Your task to perform on an android device: Show me productivity apps on the Play Store Image 0: 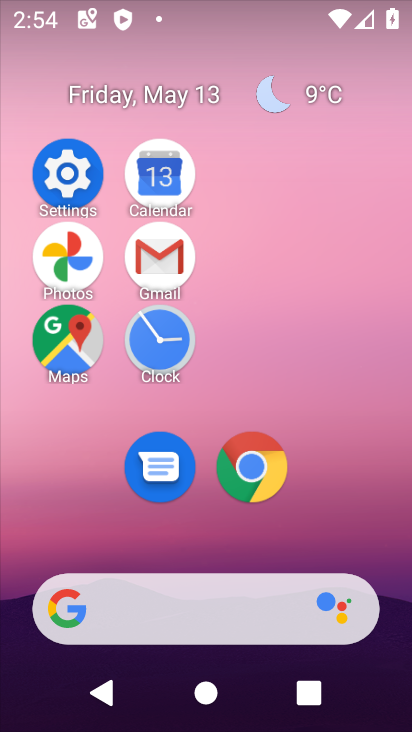
Step 0: drag from (189, 567) to (211, 138)
Your task to perform on an android device: Show me productivity apps on the Play Store Image 1: 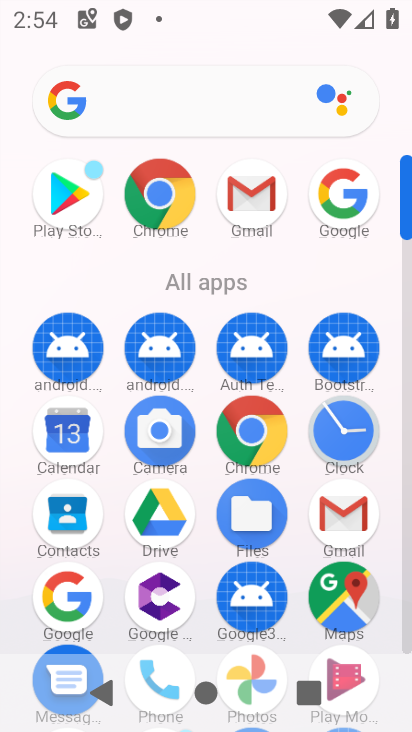
Step 1: drag from (187, 597) to (213, 293)
Your task to perform on an android device: Show me productivity apps on the Play Store Image 2: 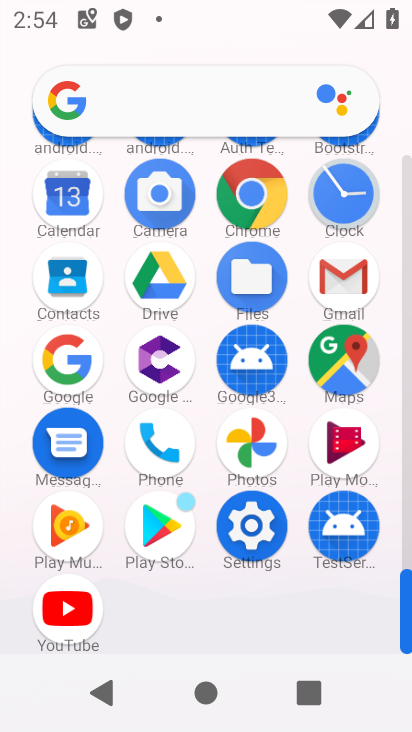
Step 2: click (166, 514)
Your task to perform on an android device: Show me productivity apps on the Play Store Image 3: 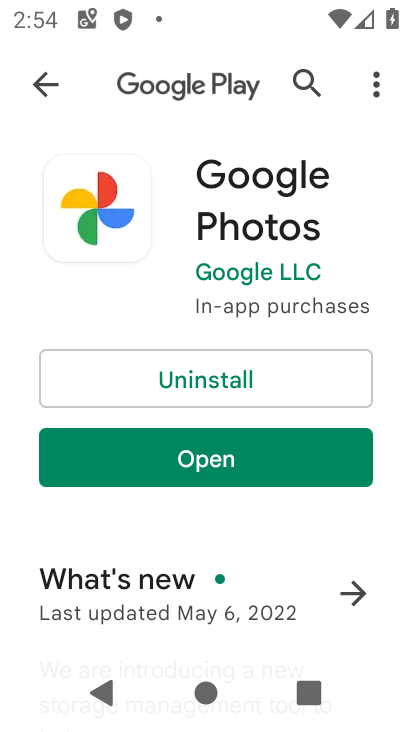
Step 3: click (53, 99)
Your task to perform on an android device: Show me productivity apps on the Play Store Image 4: 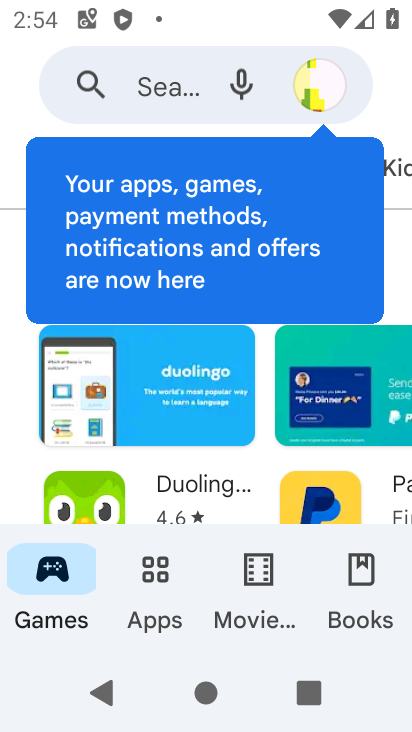
Step 4: click (162, 590)
Your task to perform on an android device: Show me productivity apps on the Play Store Image 5: 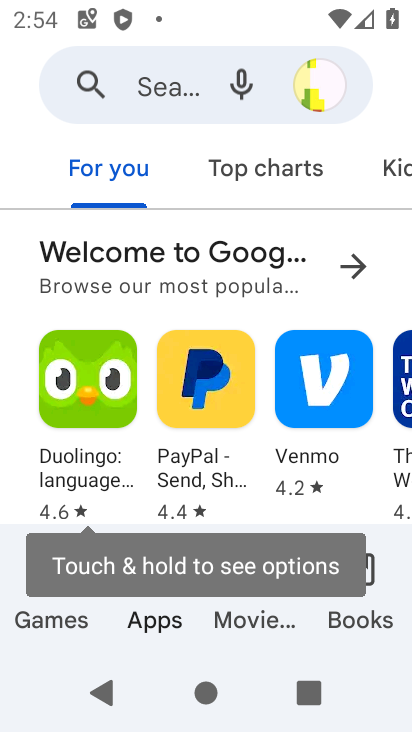
Step 5: drag from (316, 182) to (66, 181)
Your task to perform on an android device: Show me productivity apps on the Play Store Image 6: 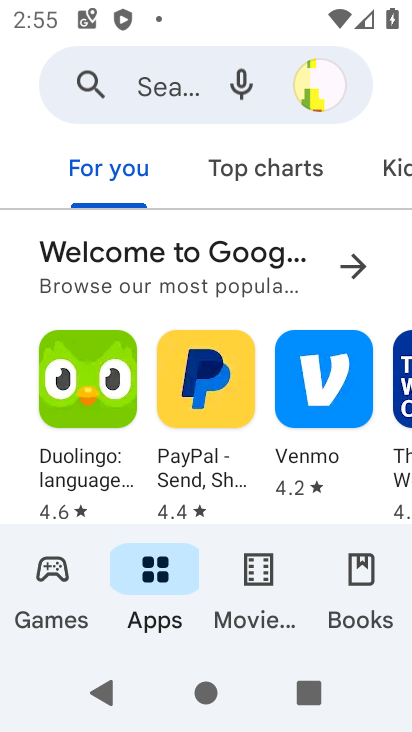
Step 6: drag from (370, 162) to (60, 170)
Your task to perform on an android device: Show me productivity apps on the Play Store Image 7: 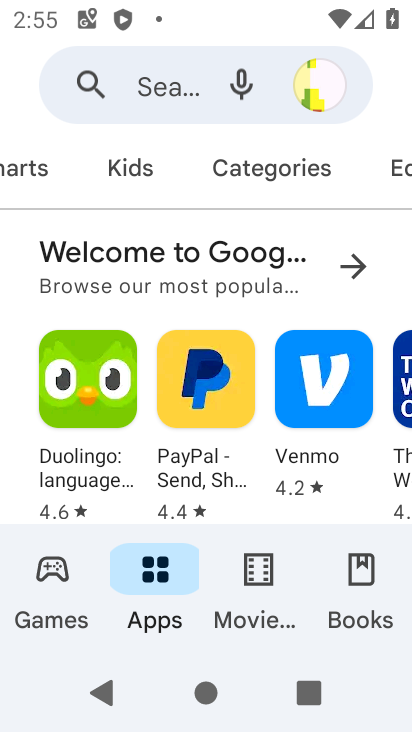
Step 7: click (285, 165)
Your task to perform on an android device: Show me productivity apps on the Play Store Image 8: 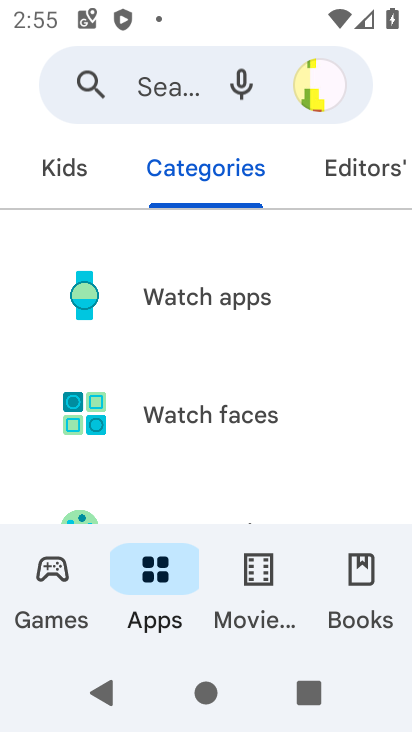
Step 8: drag from (244, 462) to (235, 152)
Your task to perform on an android device: Show me productivity apps on the Play Store Image 9: 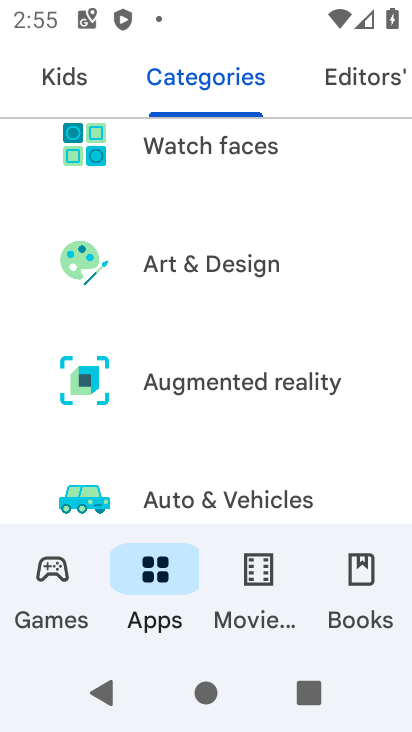
Step 9: drag from (294, 449) to (300, 133)
Your task to perform on an android device: Show me productivity apps on the Play Store Image 10: 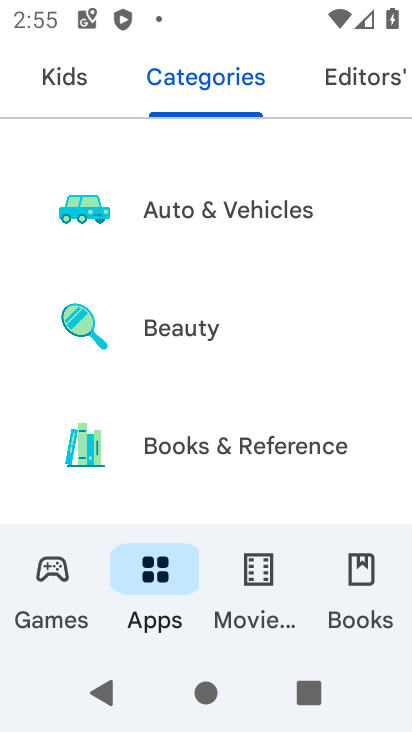
Step 10: drag from (265, 468) to (271, 183)
Your task to perform on an android device: Show me productivity apps on the Play Store Image 11: 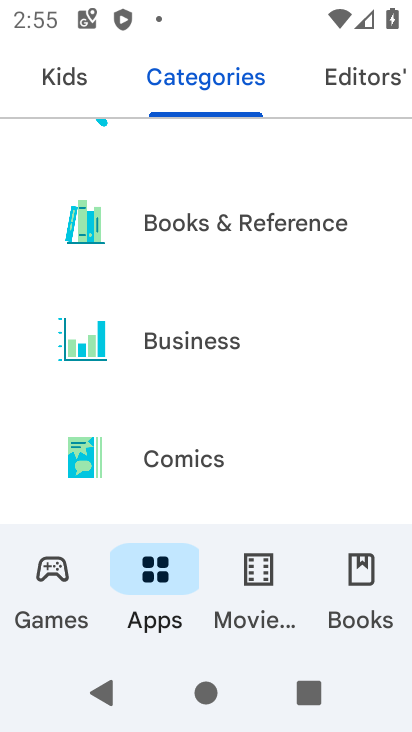
Step 11: drag from (268, 464) to (269, 110)
Your task to perform on an android device: Show me productivity apps on the Play Store Image 12: 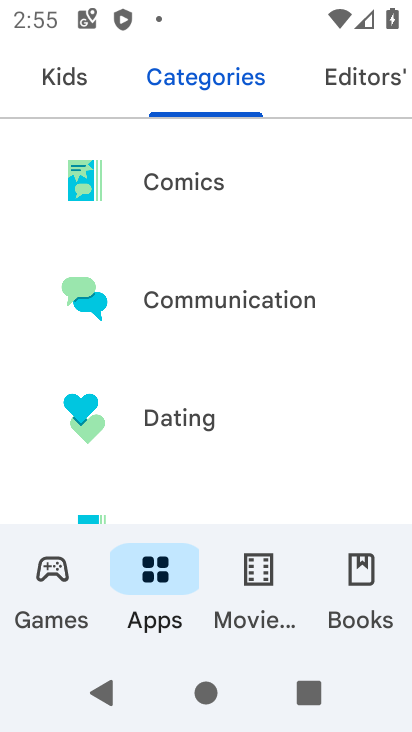
Step 12: drag from (273, 475) to (256, 127)
Your task to perform on an android device: Show me productivity apps on the Play Store Image 13: 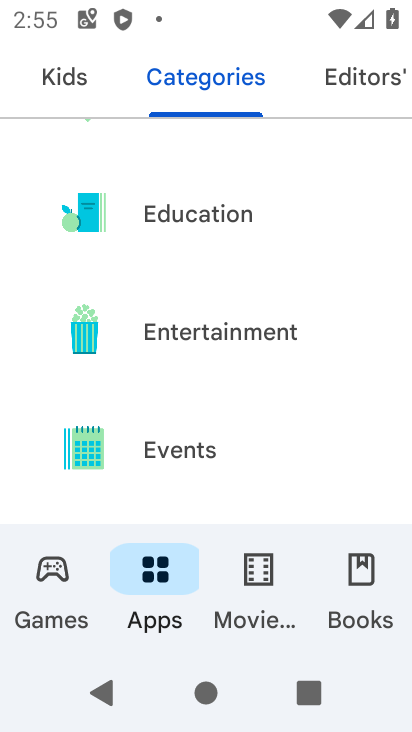
Step 13: drag from (219, 495) to (229, 165)
Your task to perform on an android device: Show me productivity apps on the Play Store Image 14: 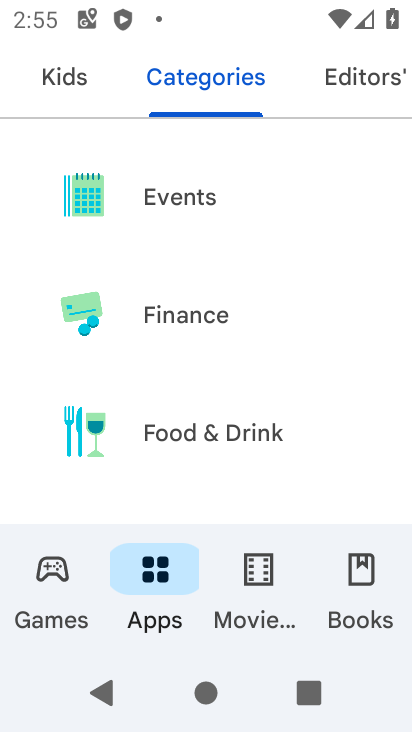
Step 14: drag from (264, 475) to (247, 143)
Your task to perform on an android device: Show me productivity apps on the Play Store Image 15: 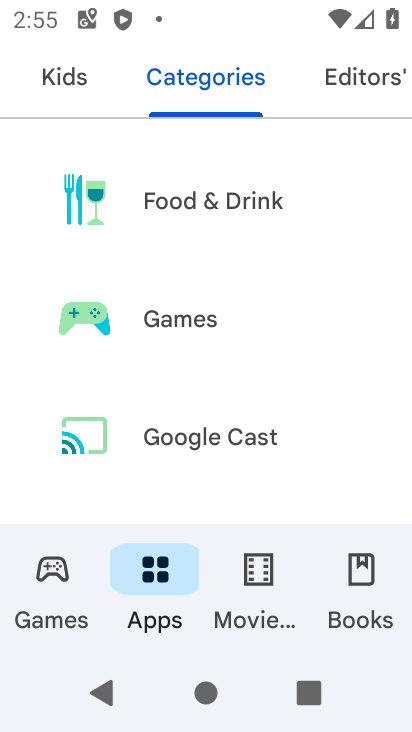
Step 15: drag from (252, 469) to (236, 177)
Your task to perform on an android device: Show me productivity apps on the Play Store Image 16: 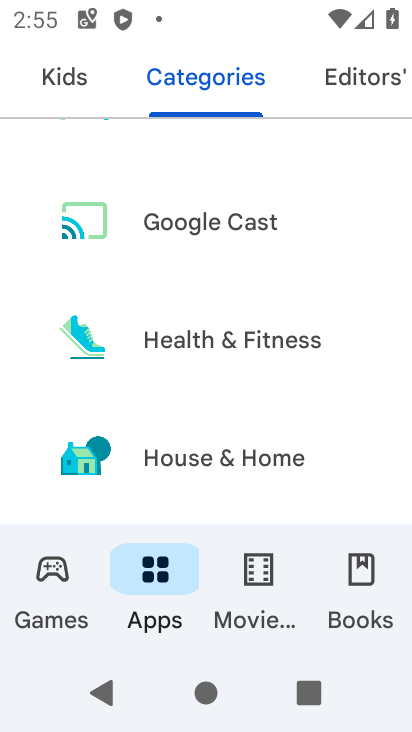
Step 16: drag from (316, 487) to (329, 104)
Your task to perform on an android device: Show me productivity apps on the Play Store Image 17: 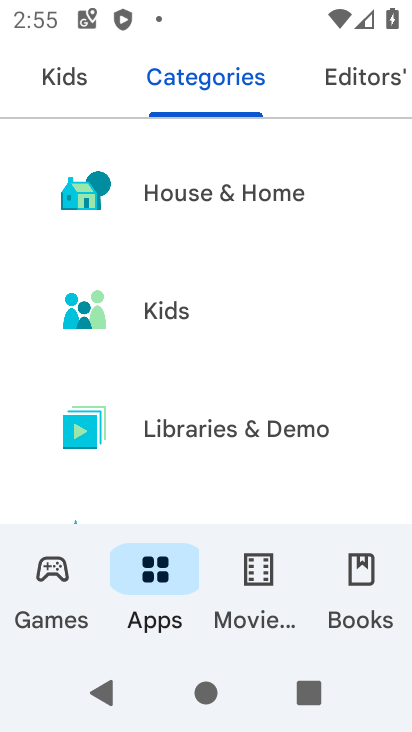
Step 17: drag from (235, 472) to (275, 122)
Your task to perform on an android device: Show me productivity apps on the Play Store Image 18: 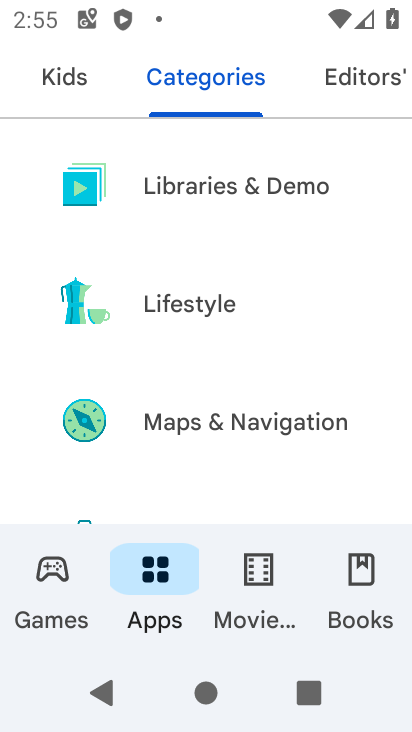
Step 18: drag from (256, 501) to (281, 207)
Your task to perform on an android device: Show me productivity apps on the Play Store Image 19: 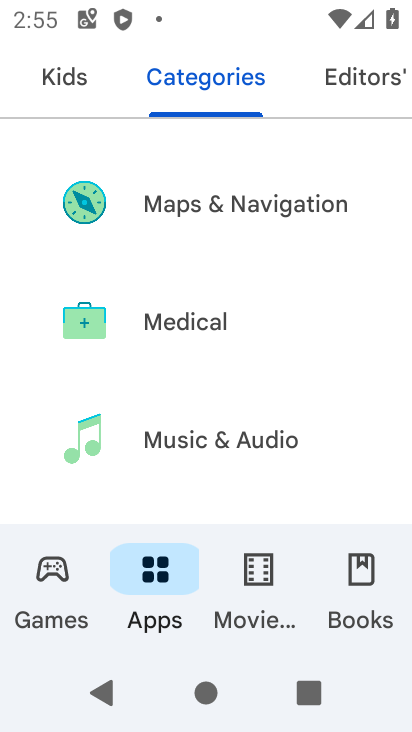
Step 19: drag from (286, 473) to (299, 198)
Your task to perform on an android device: Show me productivity apps on the Play Store Image 20: 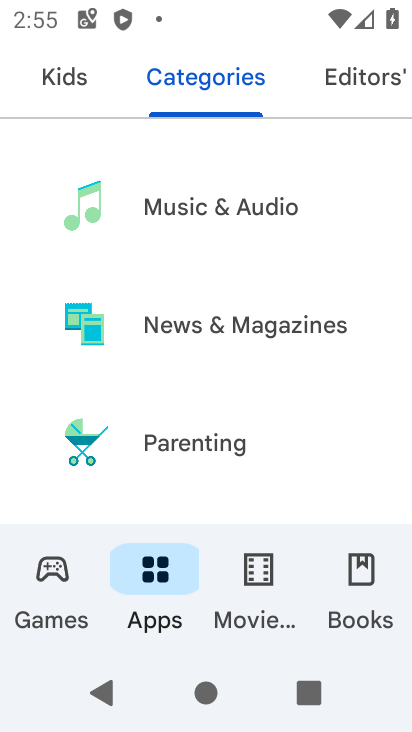
Step 20: drag from (296, 460) to (297, 175)
Your task to perform on an android device: Show me productivity apps on the Play Store Image 21: 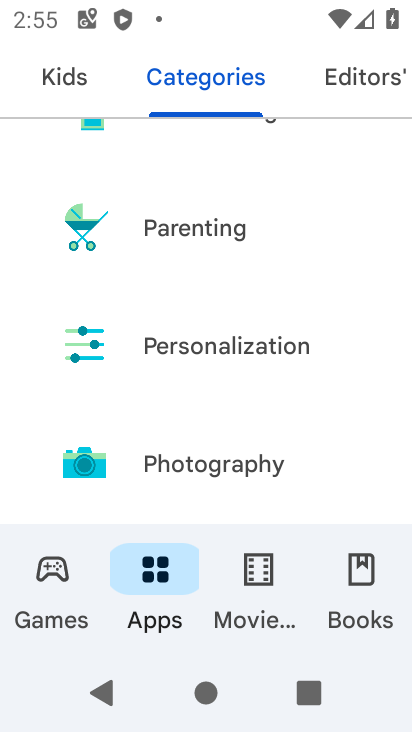
Step 21: drag from (277, 487) to (293, 153)
Your task to perform on an android device: Show me productivity apps on the Play Store Image 22: 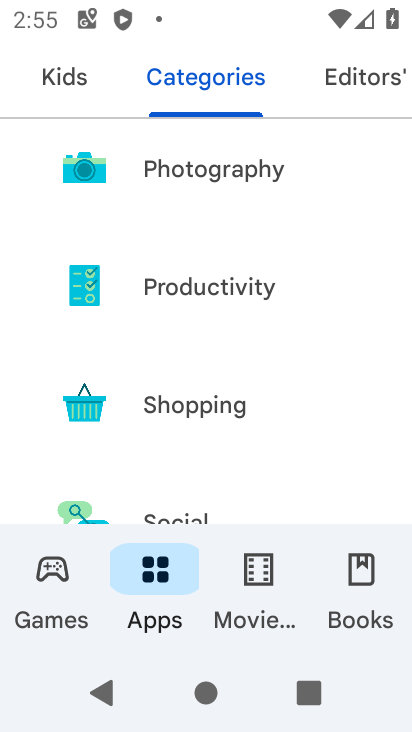
Step 22: click (267, 289)
Your task to perform on an android device: Show me productivity apps on the Play Store Image 23: 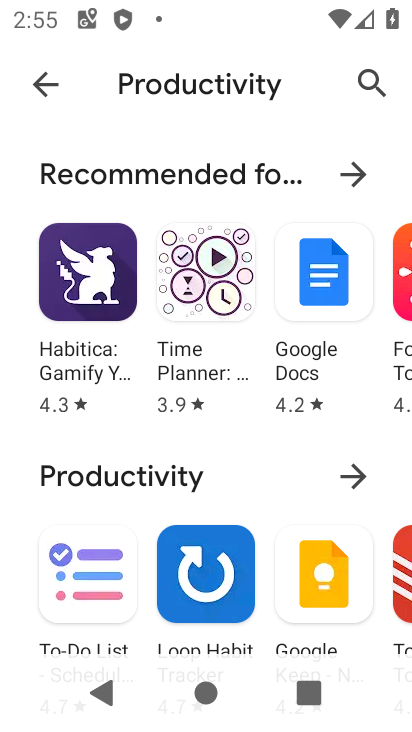
Step 23: task complete